Your task to perform on an android device: Open accessibility settings Image 0: 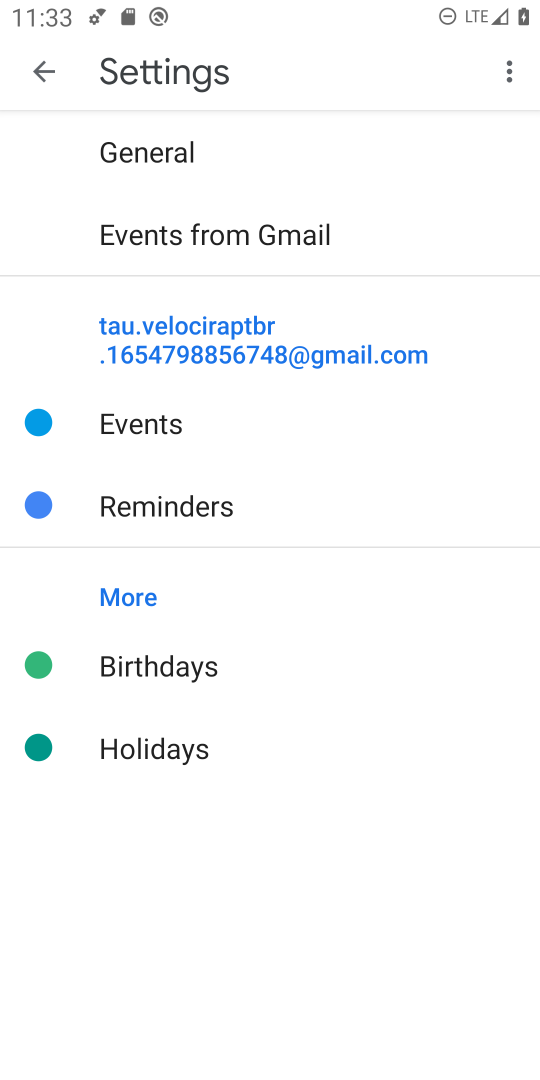
Step 0: press home button
Your task to perform on an android device: Open accessibility settings Image 1: 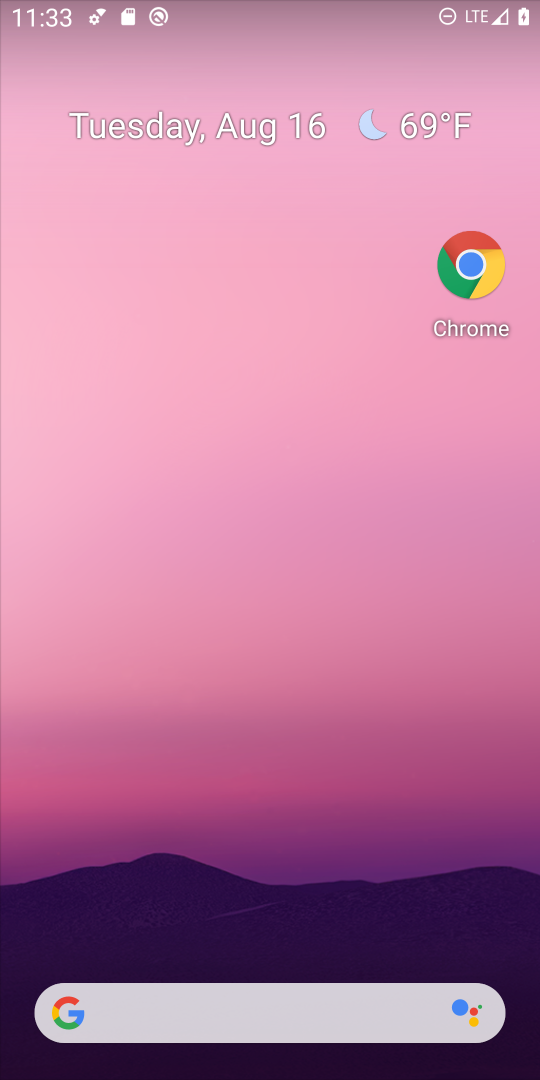
Step 1: drag from (326, 949) to (486, 122)
Your task to perform on an android device: Open accessibility settings Image 2: 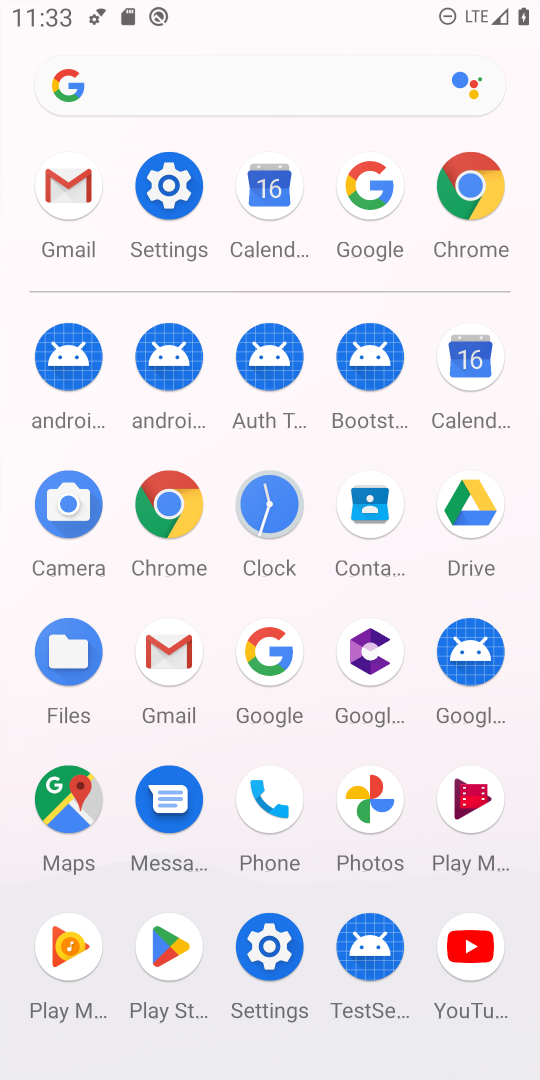
Step 2: click (179, 209)
Your task to perform on an android device: Open accessibility settings Image 3: 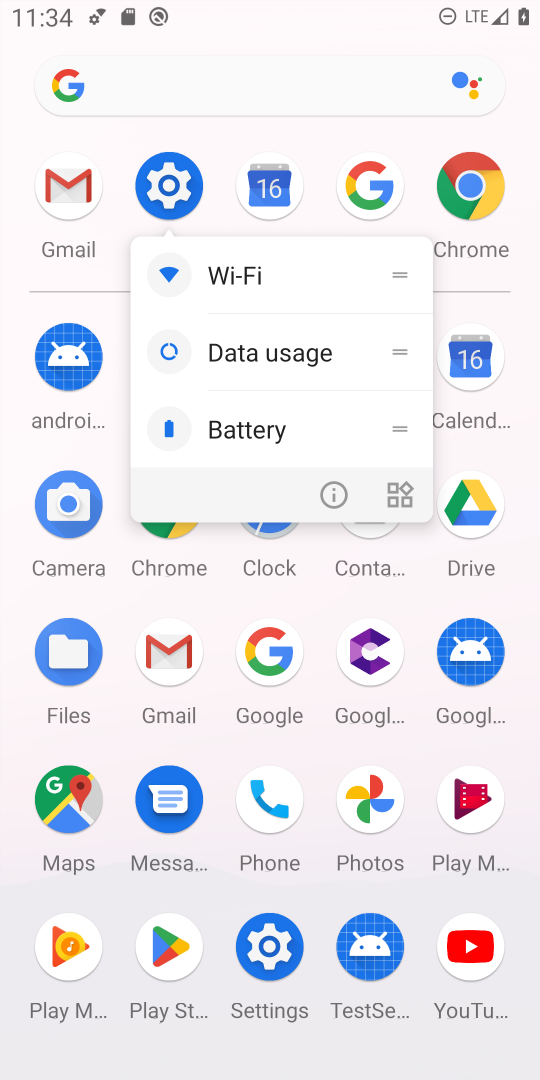
Step 3: click (179, 209)
Your task to perform on an android device: Open accessibility settings Image 4: 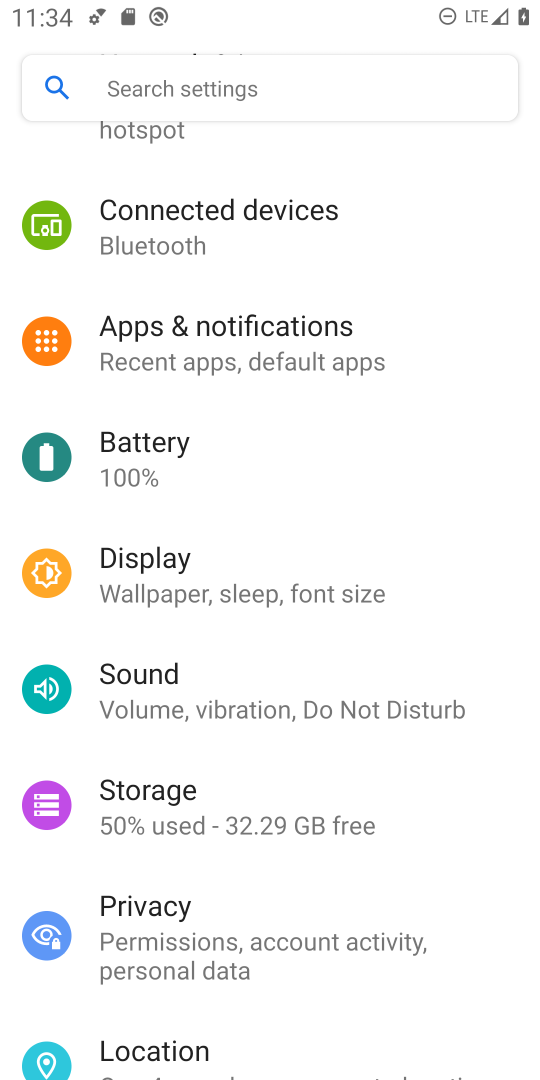
Step 4: drag from (137, 817) to (253, 257)
Your task to perform on an android device: Open accessibility settings Image 5: 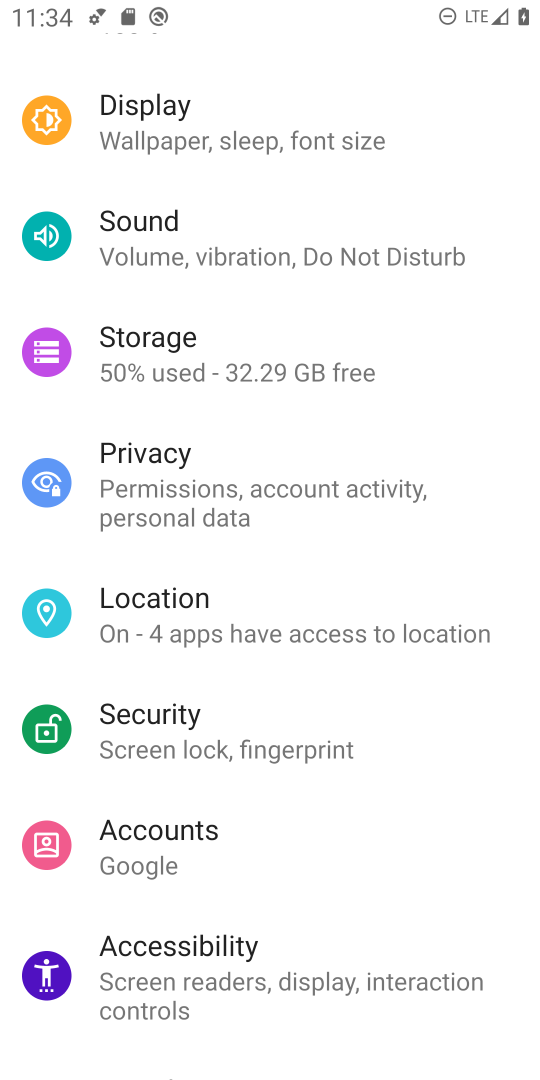
Step 5: click (231, 970)
Your task to perform on an android device: Open accessibility settings Image 6: 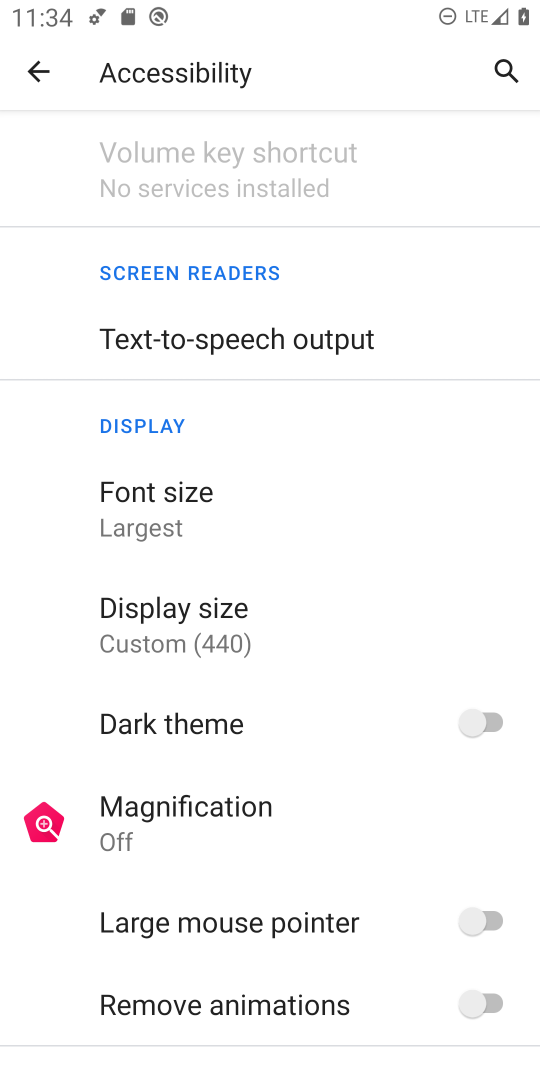
Step 6: task complete